Your task to perform on an android device: Set the phone to "Do not disturb". Image 0: 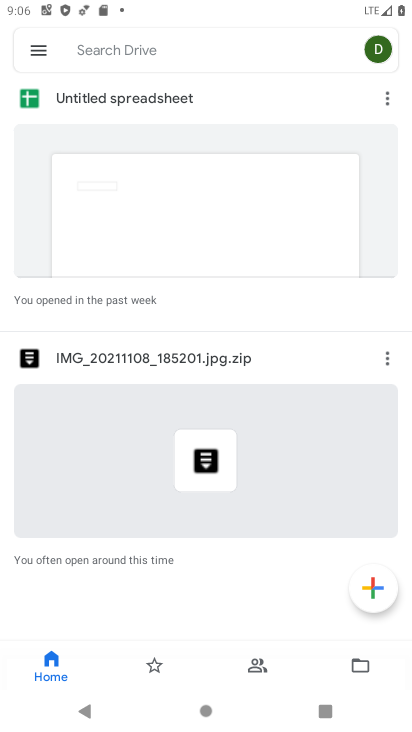
Step 0: press home button
Your task to perform on an android device: Set the phone to "Do not disturb". Image 1: 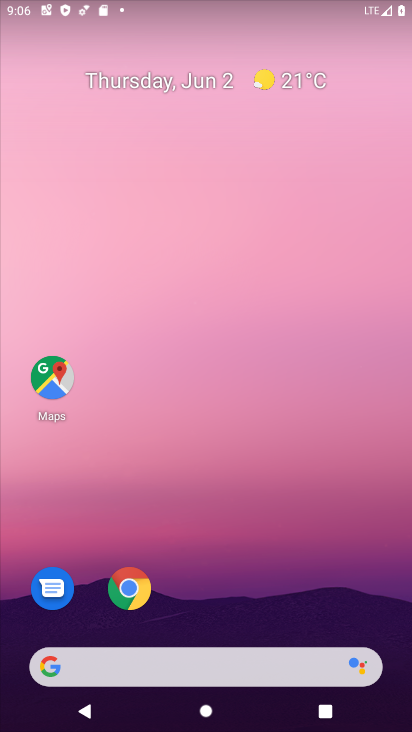
Step 1: drag from (256, 600) to (256, 344)
Your task to perform on an android device: Set the phone to "Do not disturb". Image 2: 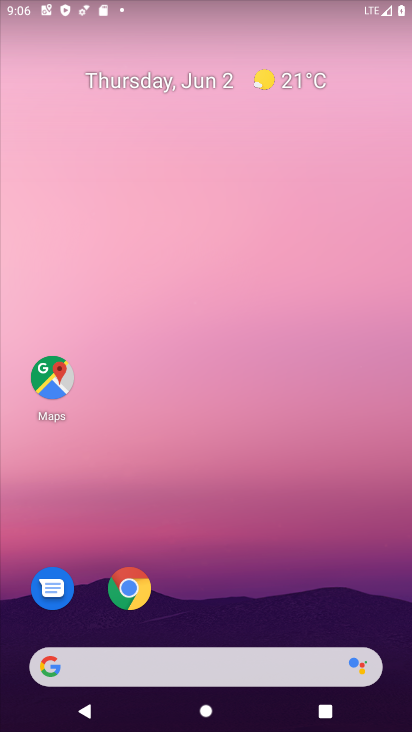
Step 2: drag from (283, 19) to (259, 348)
Your task to perform on an android device: Set the phone to "Do not disturb". Image 3: 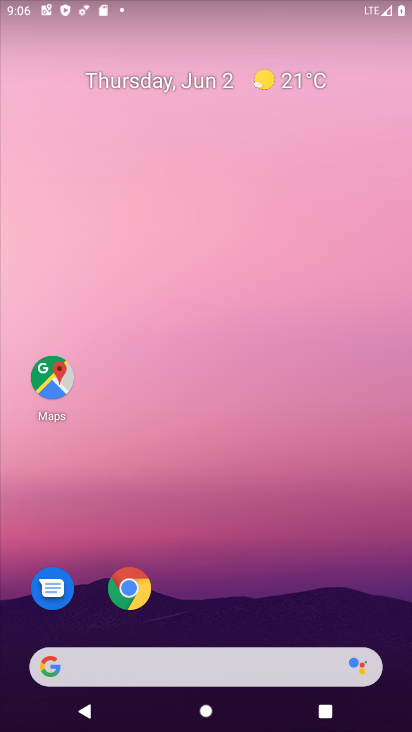
Step 3: drag from (200, 34) to (217, 403)
Your task to perform on an android device: Set the phone to "Do not disturb". Image 4: 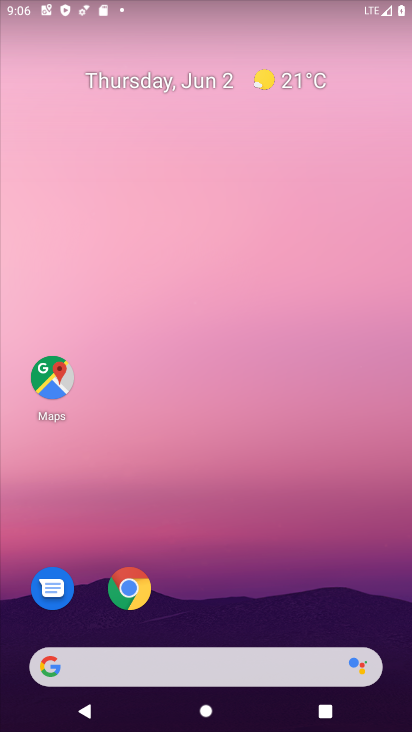
Step 4: drag from (293, 34) to (300, 379)
Your task to perform on an android device: Set the phone to "Do not disturb". Image 5: 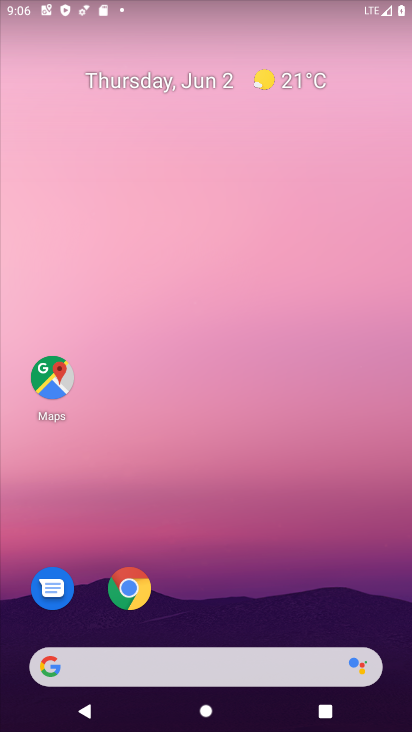
Step 5: drag from (235, 23) to (263, 515)
Your task to perform on an android device: Set the phone to "Do not disturb". Image 6: 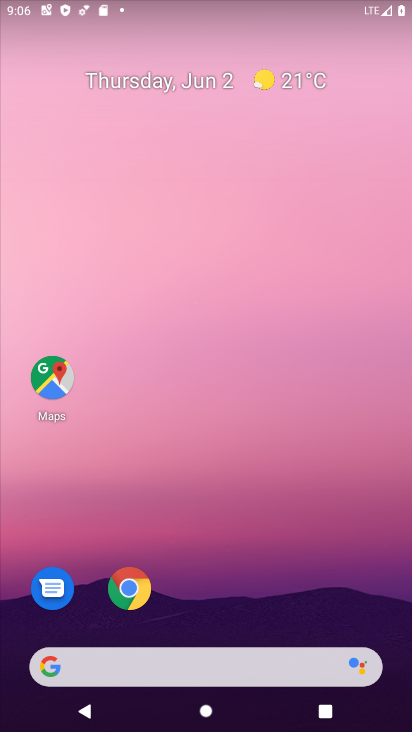
Step 6: drag from (259, 4) to (256, 496)
Your task to perform on an android device: Set the phone to "Do not disturb". Image 7: 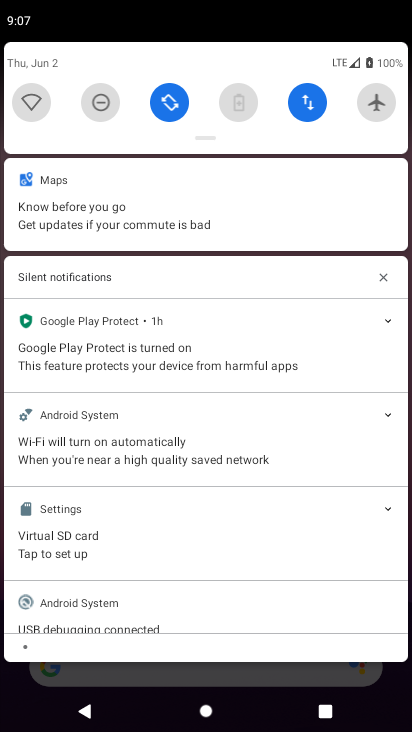
Step 7: click (104, 109)
Your task to perform on an android device: Set the phone to "Do not disturb". Image 8: 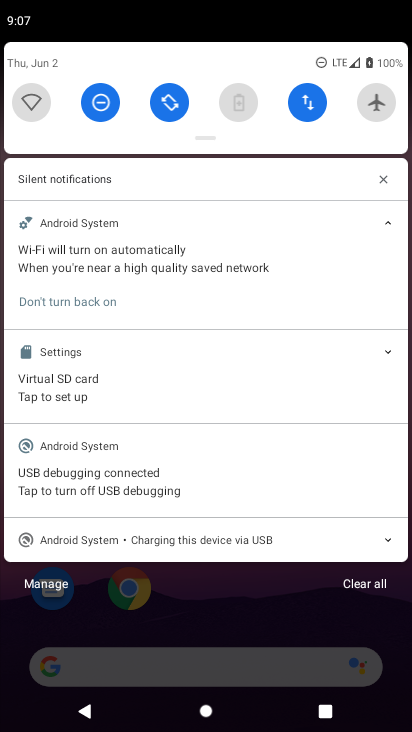
Step 8: task complete